Your task to perform on an android device: Play the last video I watched on Youtube Image 0: 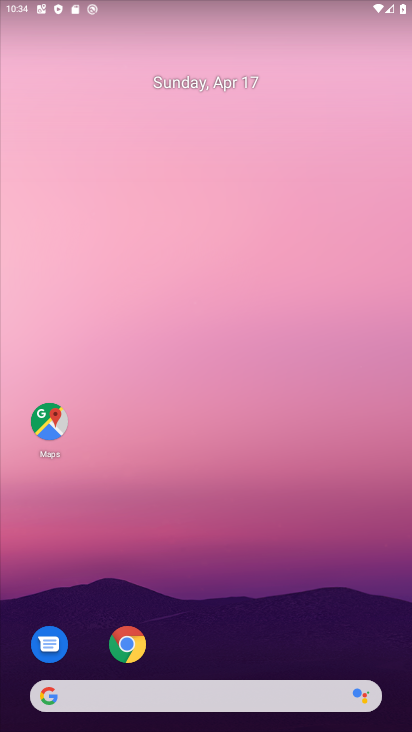
Step 0: click (129, 642)
Your task to perform on an android device: Play the last video I watched on Youtube Image 1: 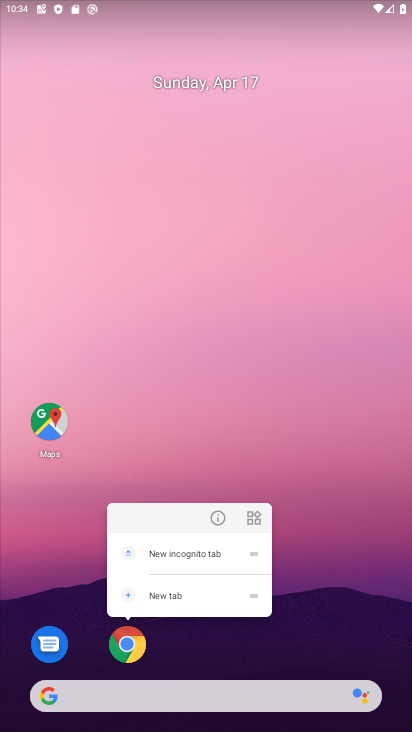
Step 1: click (127, 646)
Your task to perform on an android device: Play the last video I watched on Youtube Image 2: 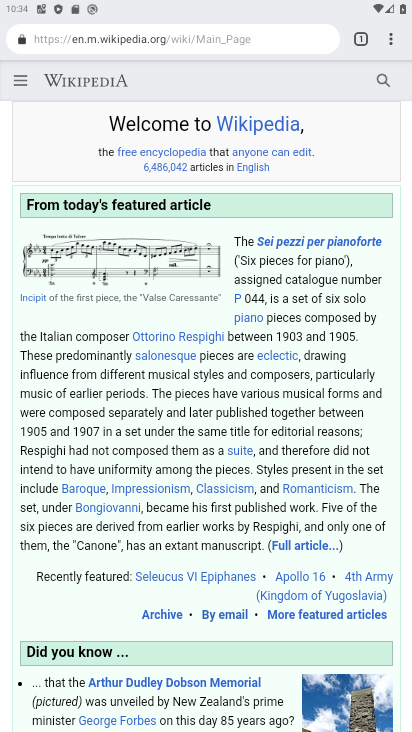
Step 2: click (222, 36)
Your task to perform on an android device: Play the last video I watched on Youtube Image 3: 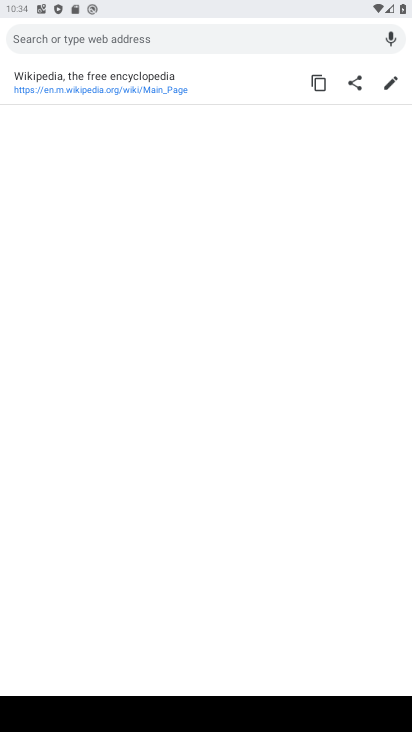
Step 3: type "news"
Your task to perform on an android device: Play the last video I watched on Youtube Image 4: 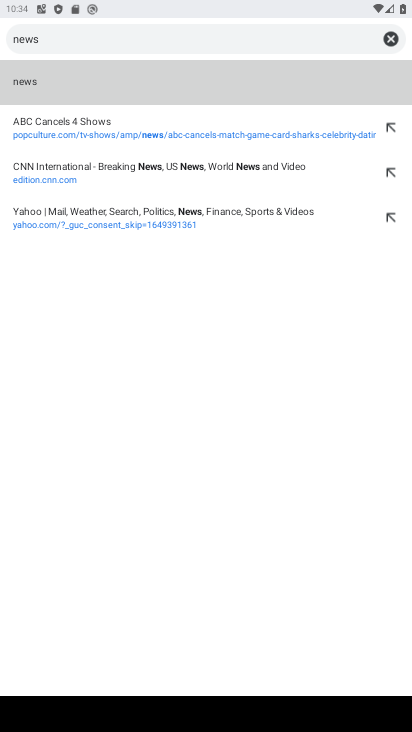
Step 4: click (90, 90)
Your task to perform on an android device: Play the last video I watched on Youtube Image 5: 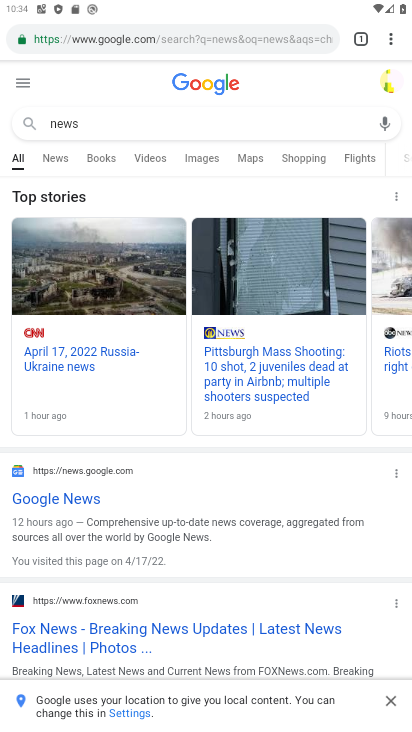
Step 5: task complete